Your task to perform on an android device: Open Google Maps Image 0: 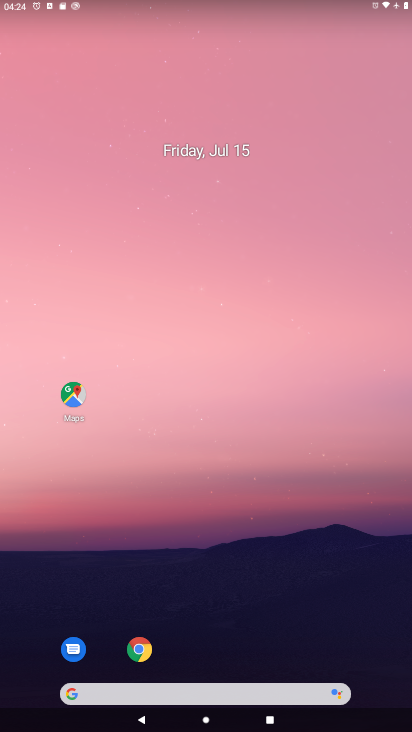
Step 0: click (71, 396)
Your task to perform on an android device: Open Google Maps Image 1: 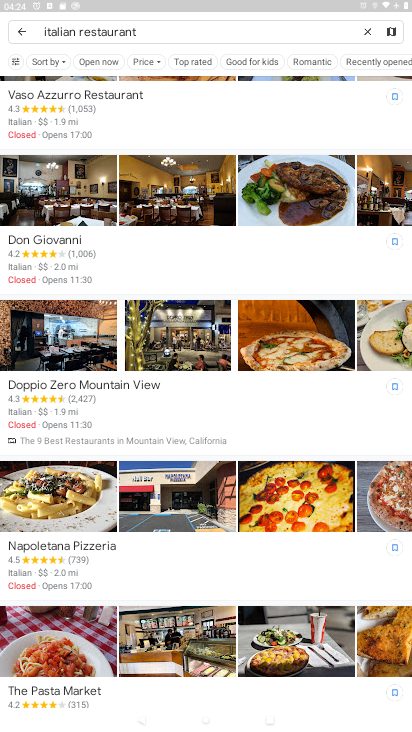
Step 1: click (364, 32)
Your task to perform on an android device: Open Google Maps Image 2: 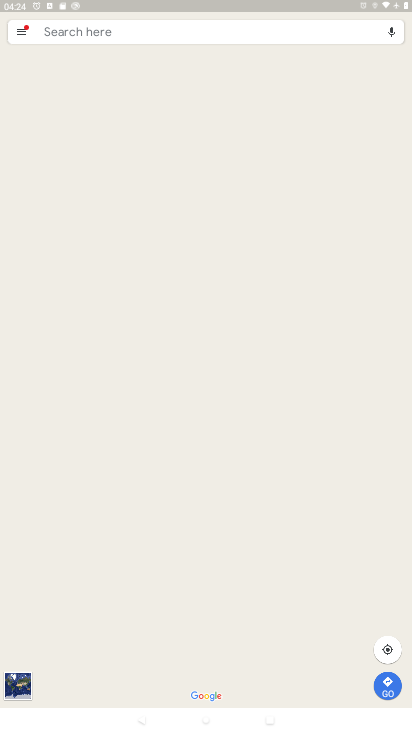
Step 2: task complete